Your task to perform on an android device: open app "Instagram" (install if not already installed) Image 0: 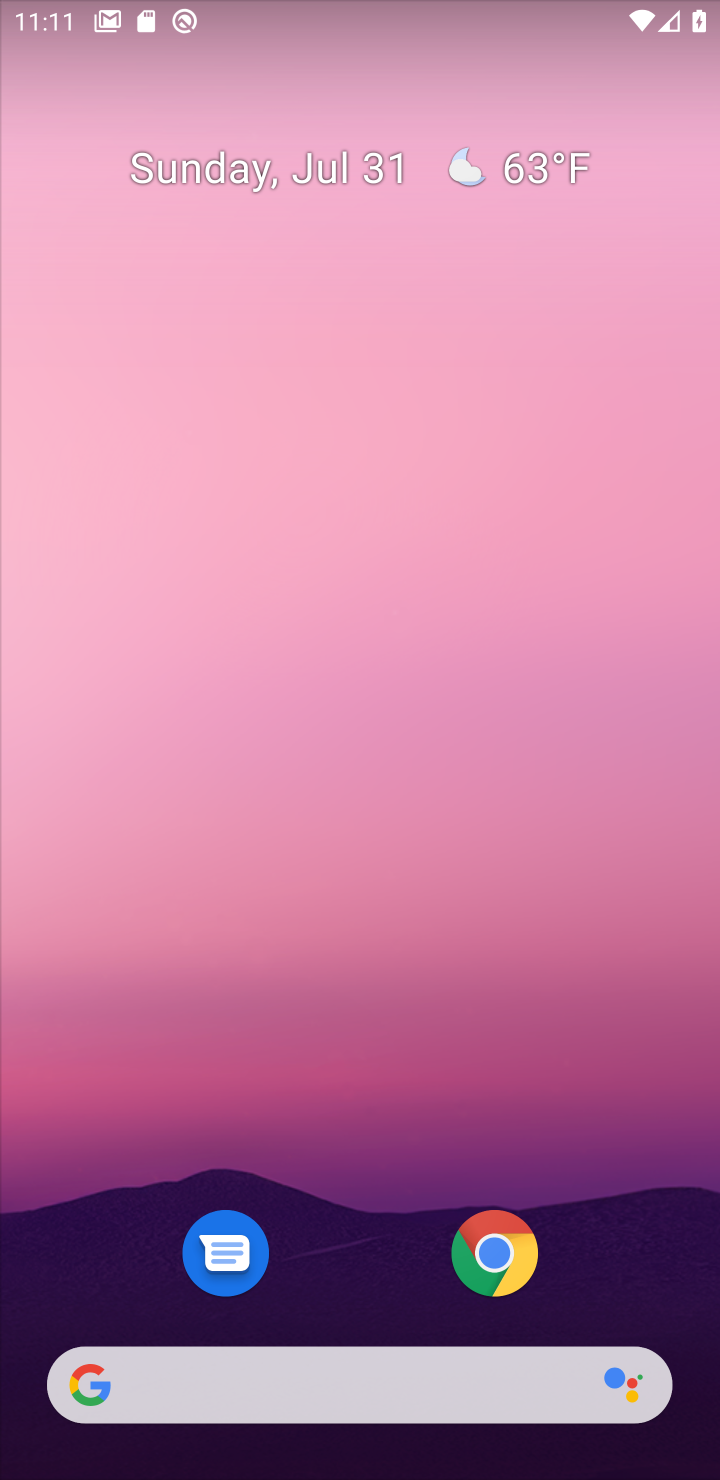
Step 0: press home button
Your task to perform on an android device: open app "Instagram" (install if not already installed) Image 1: 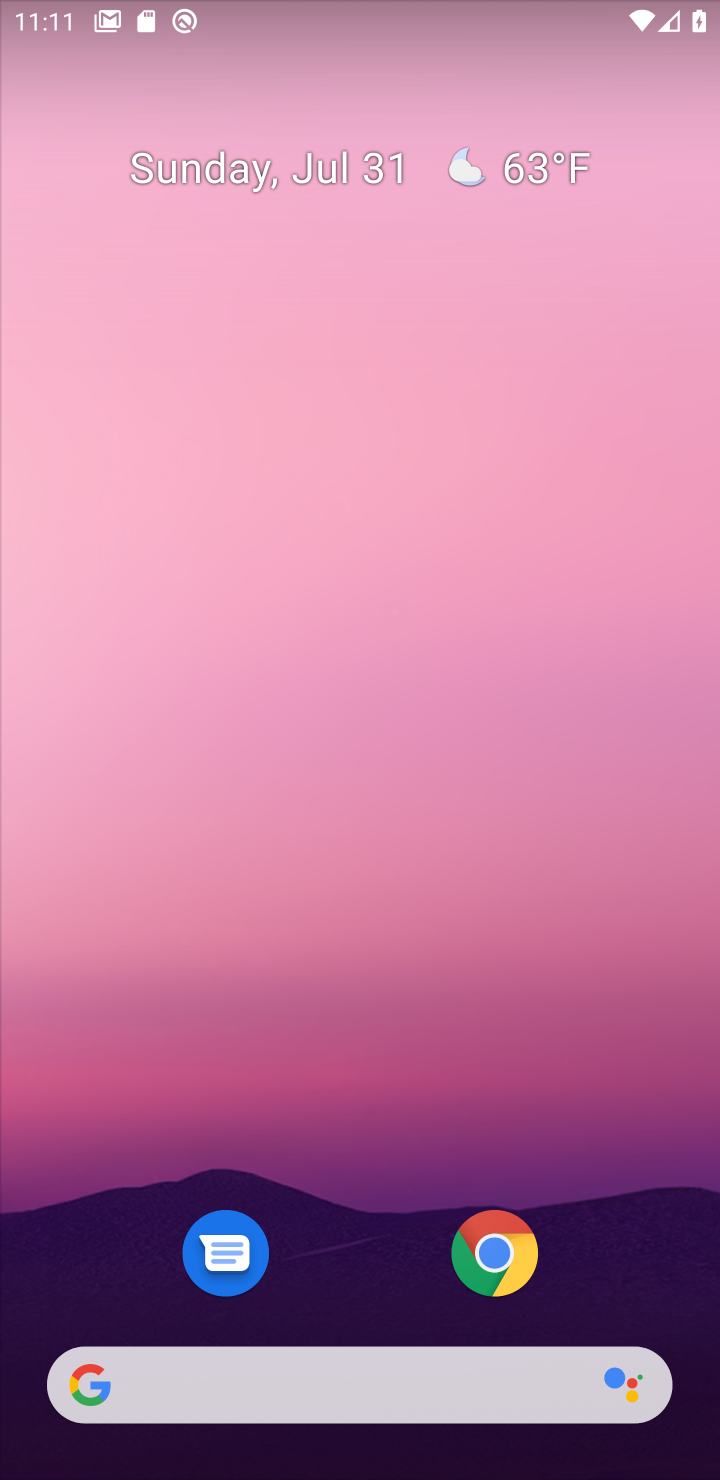
Step 1: drag from (406, 1098) to (452, 138)
Your task to perform on an android device: open app "Instagram" (install if not already installed) Image 2: 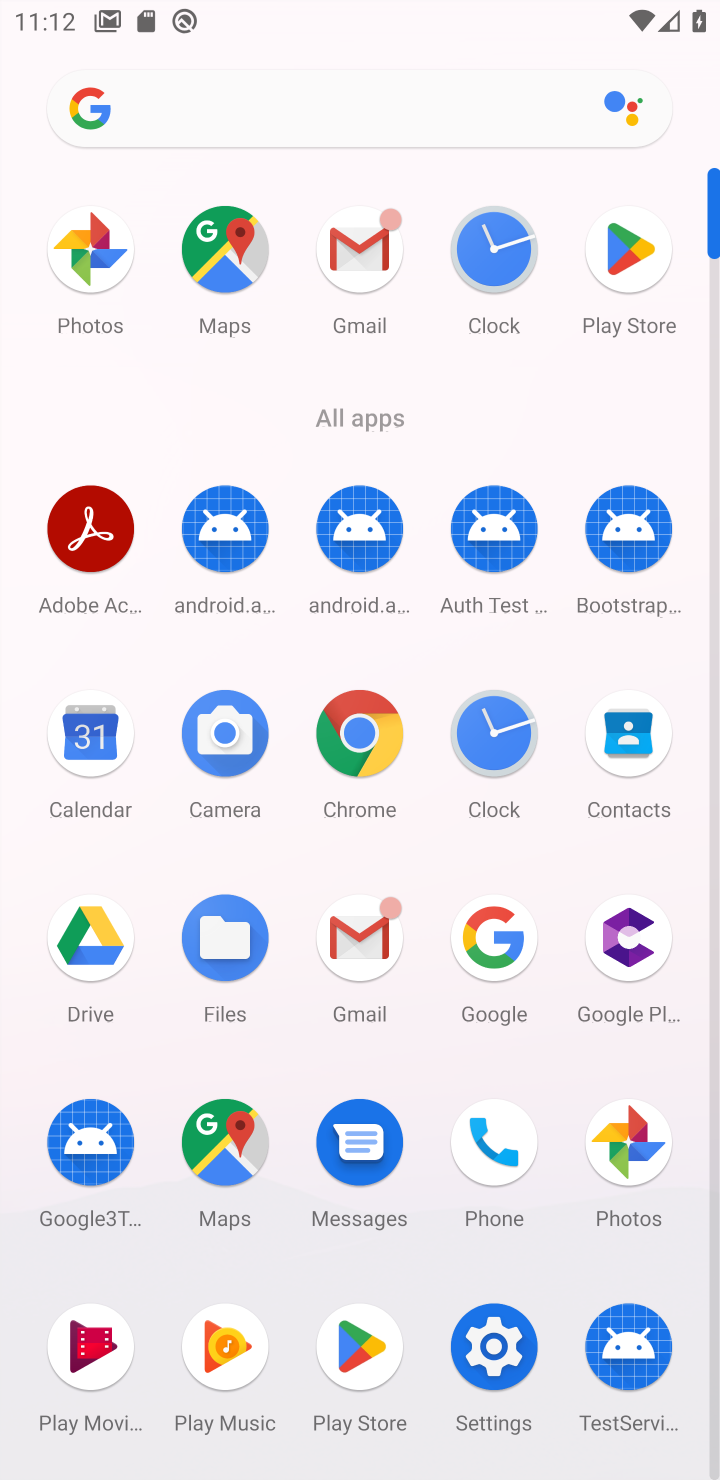
Step 2: click (630, 264)
Your task to perform on an android device: open app "Instagram" (install if not already installed) Image 3: 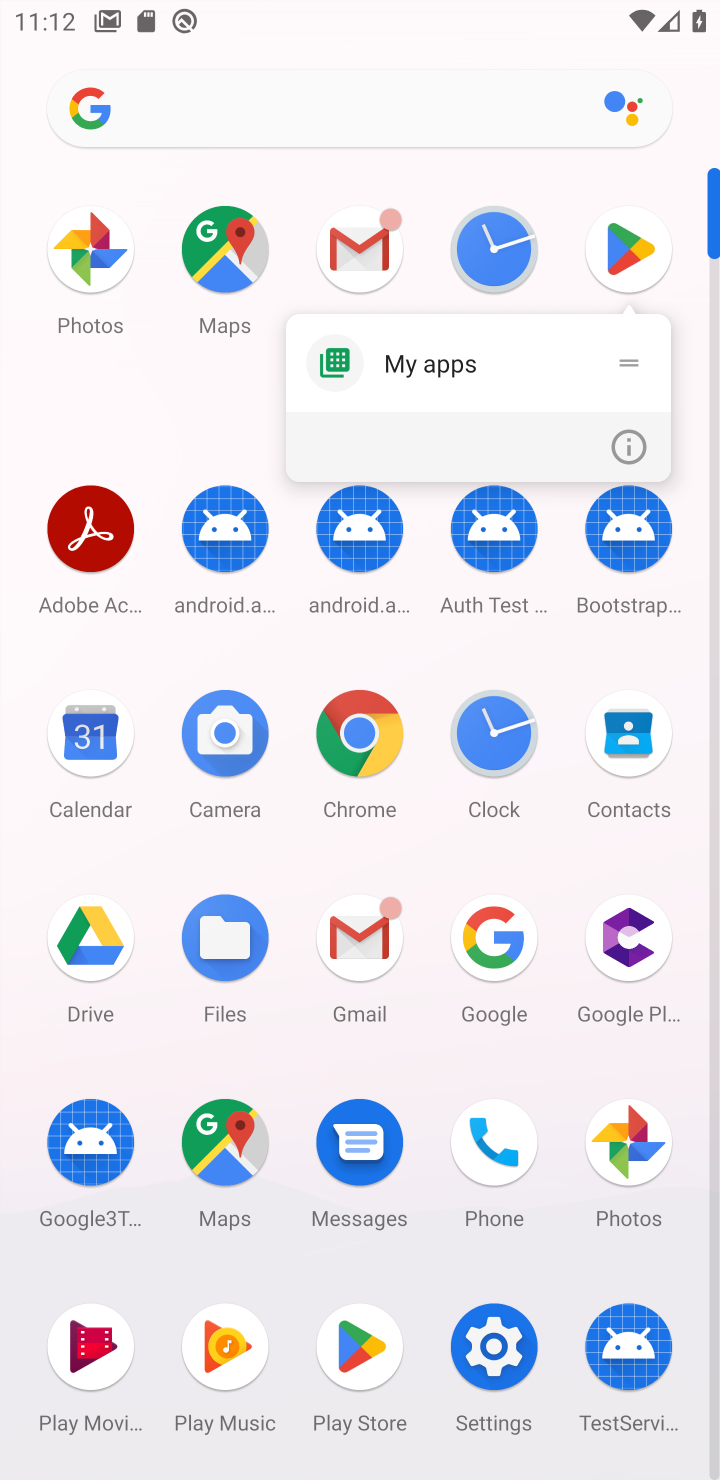
Step 3: click (628, 260)
Your task to perform on an android device: open app "Instagram" (install if not already installed) Image 4: 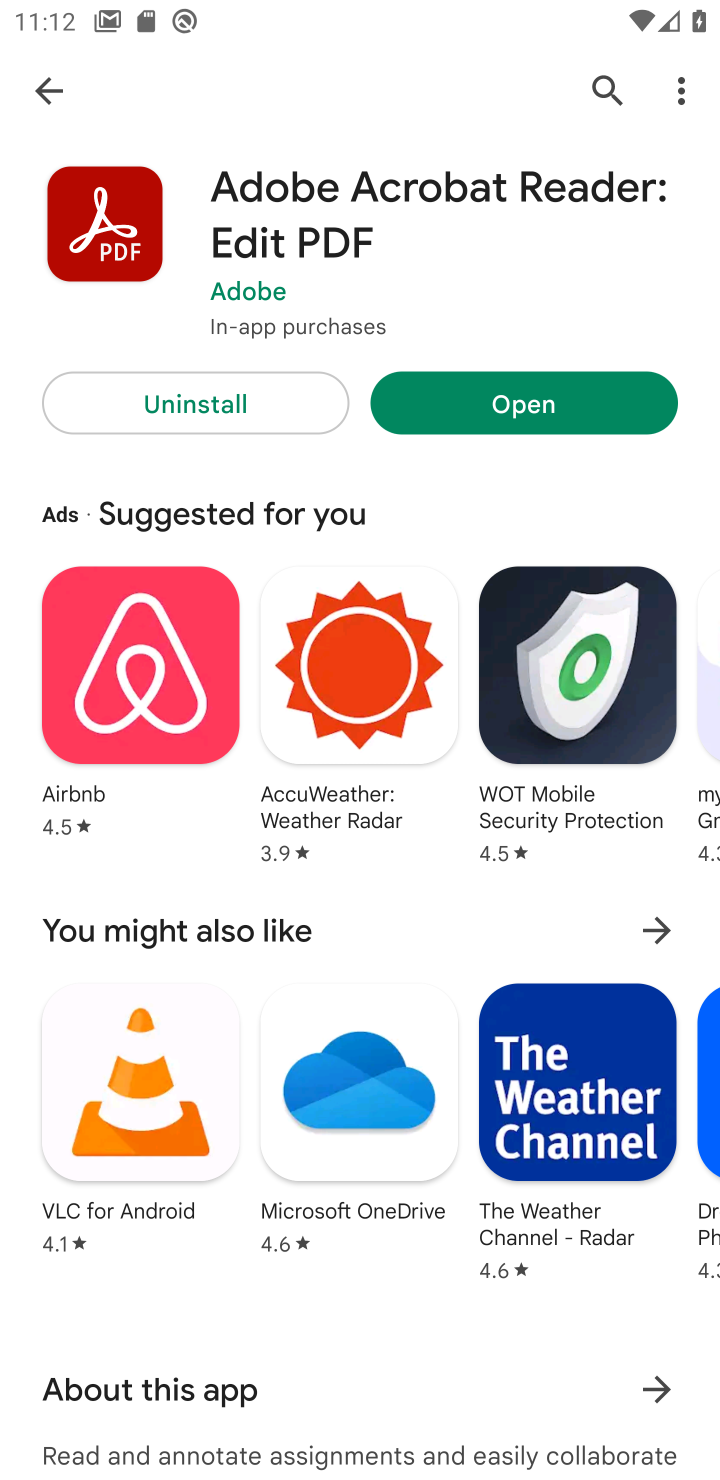
Step 4: click (585, 78)
Your task to perform on an android device: open app "Instagram" (install if not already installed) Image 5: 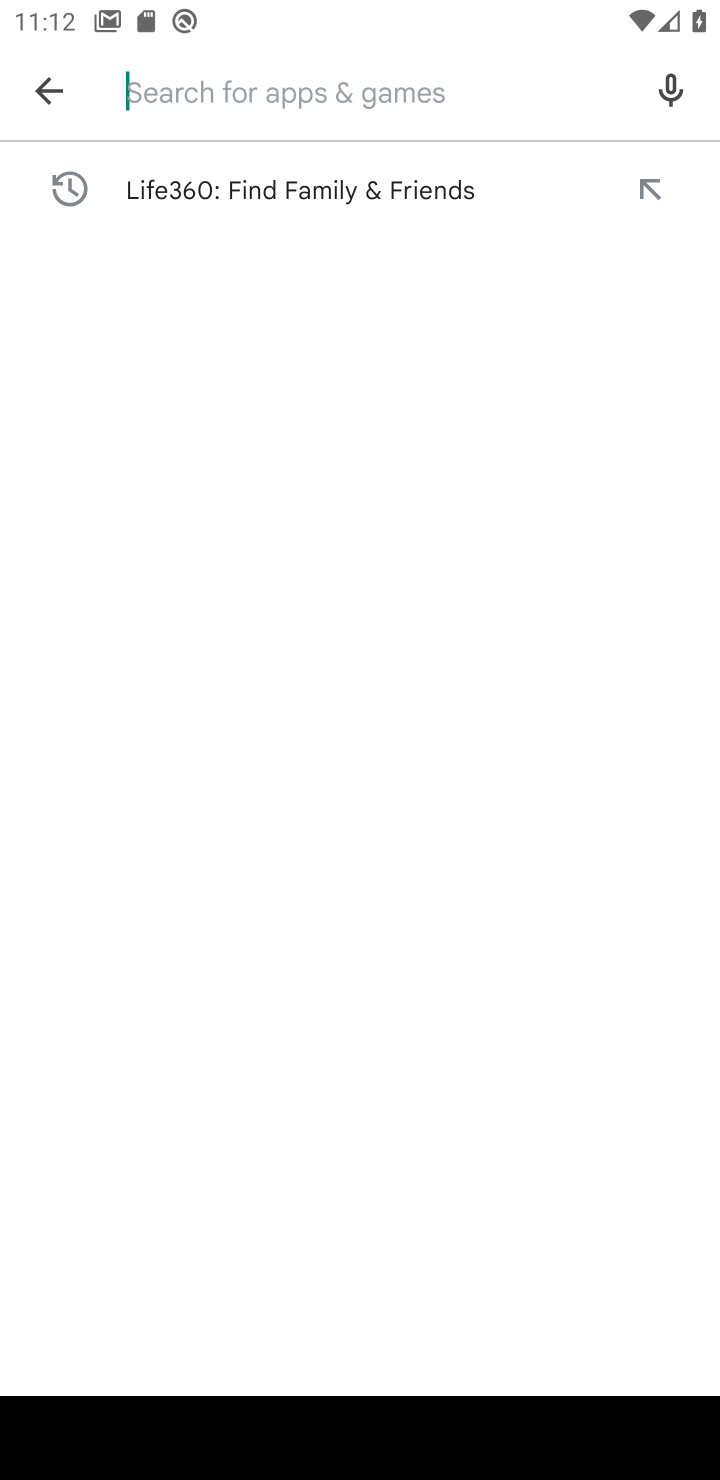
Step 5: type "Instagram"
Your task to perform on an android device: open app "Instagram" (install if not already installed) Image 6: 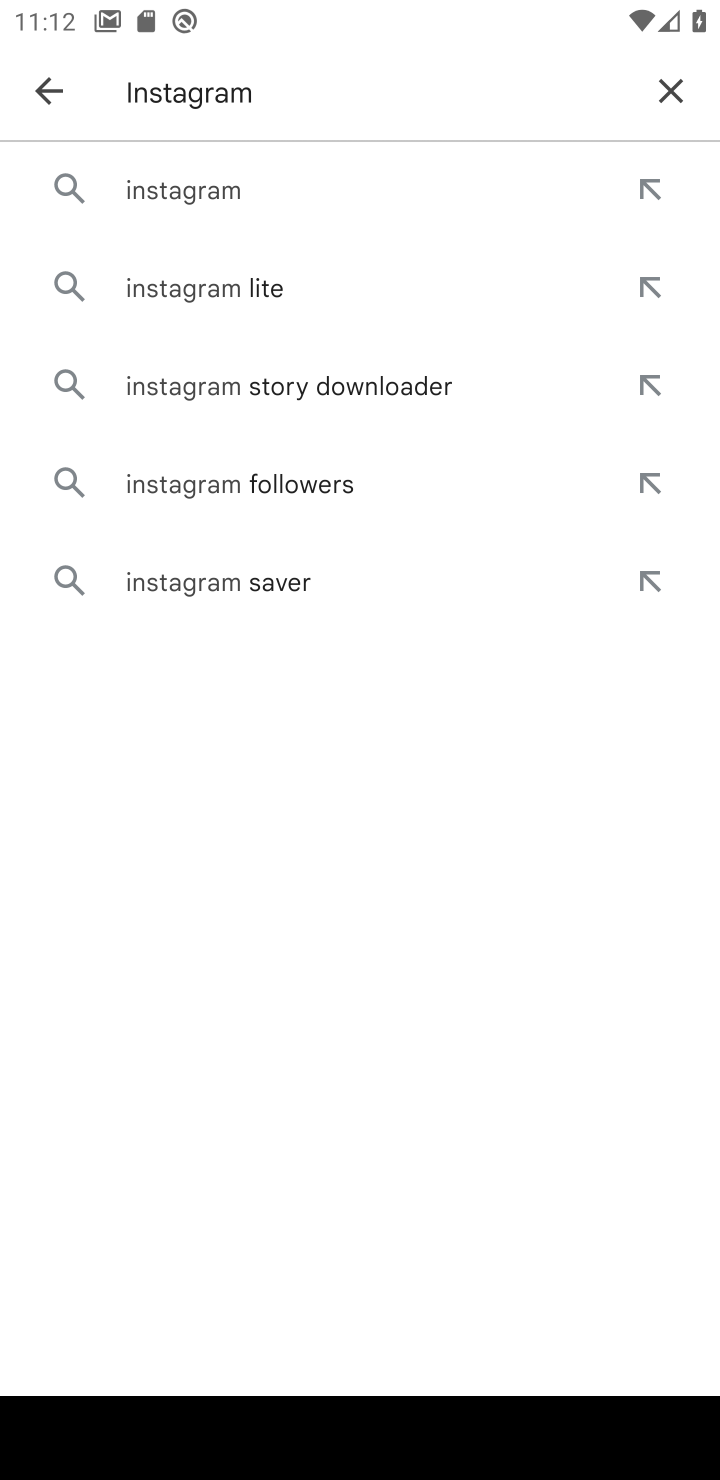
Step 6: press enter
Your task to perform on an android device: open app "Instagram" (install if not already installed) Image 7: 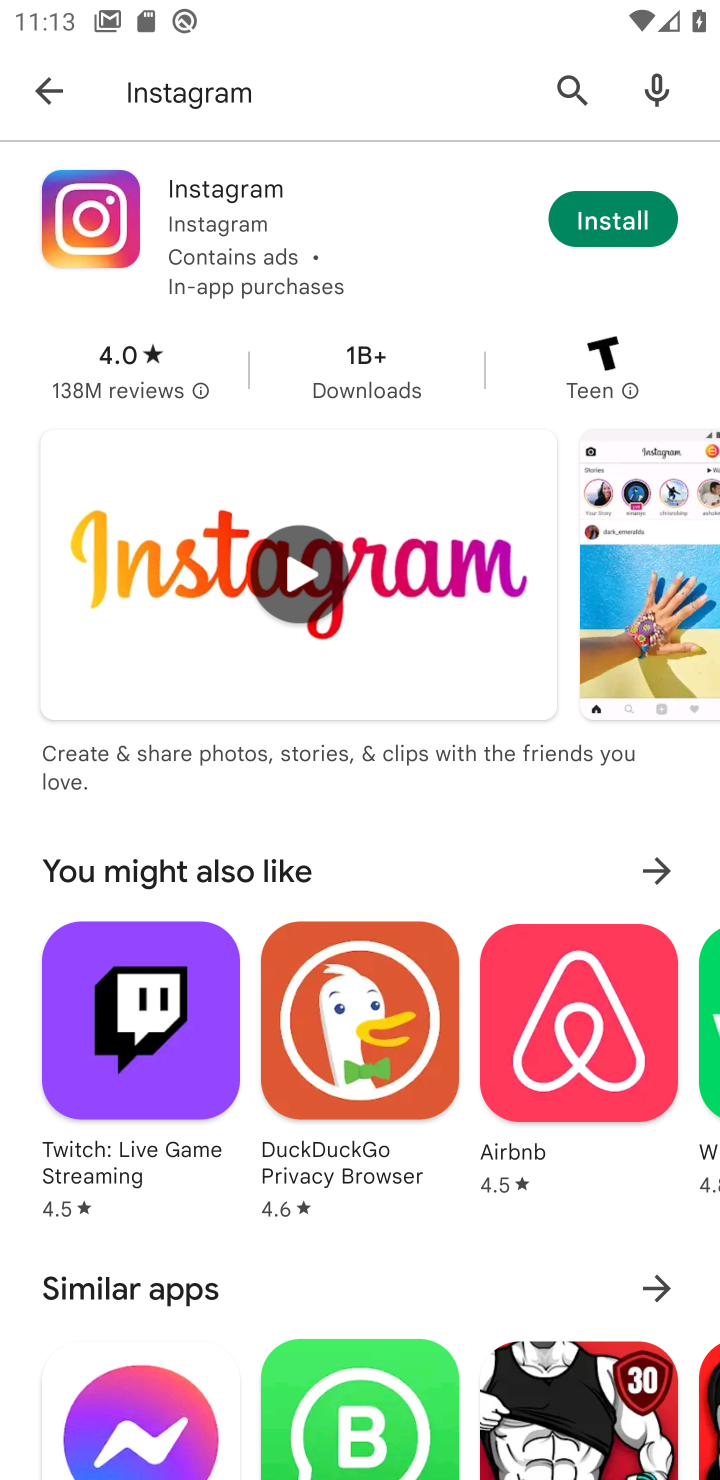
Step 7: click (660, 220)
Your task to perform on an android device: open app "Instagram" (install if not already installed) Image 8: 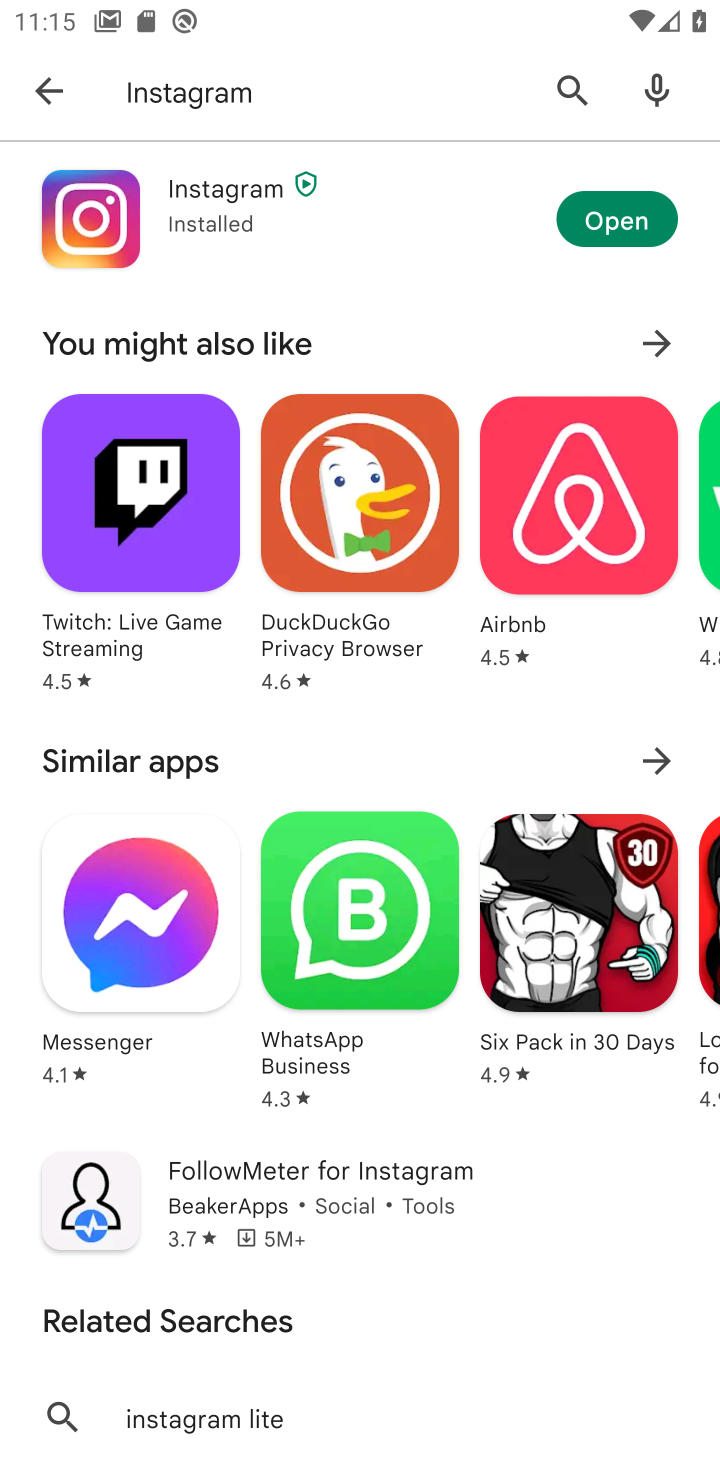
Step 8: click (641, 211)
Your task to perform on an android device: open app "Instagram" (install if not already installed) Image 9: 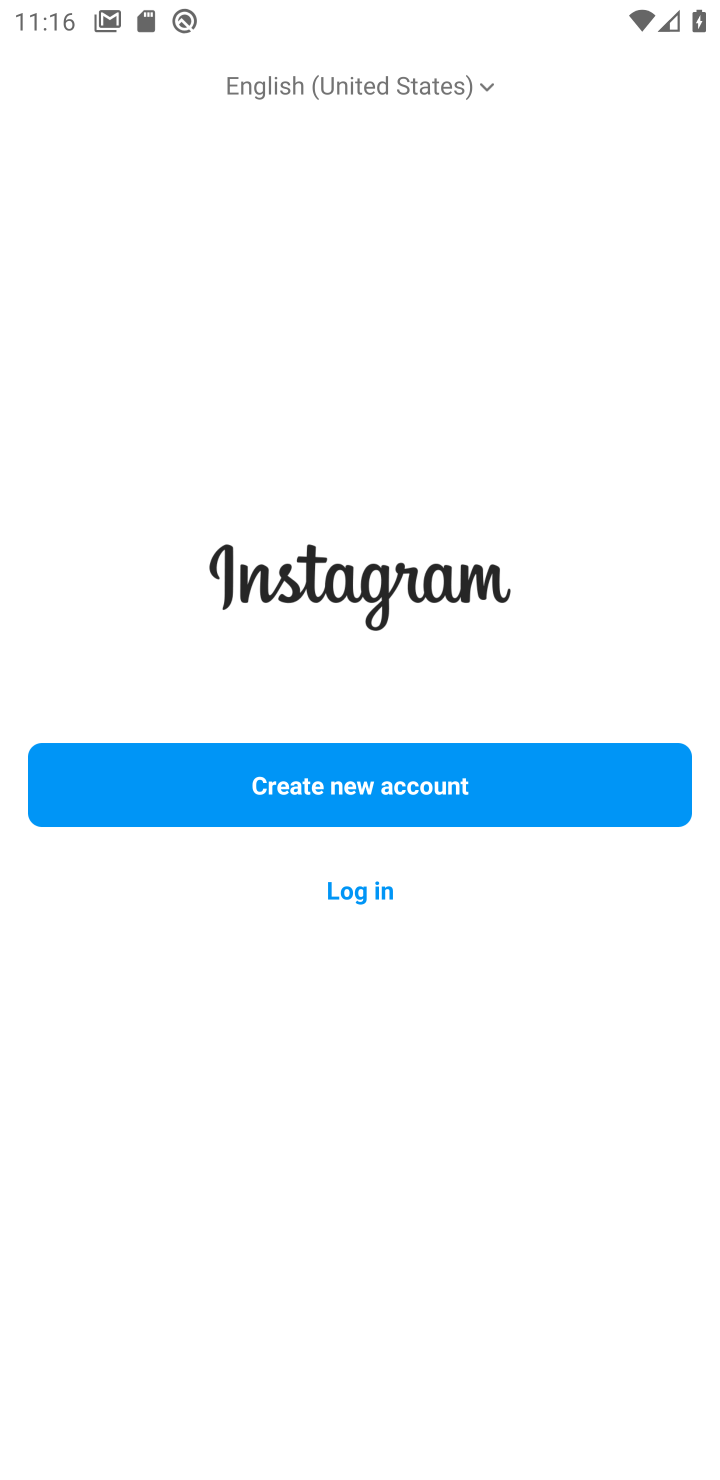
Step 9: task complete